Your task to perform on an android device: Search for sushi restaurants on Maps Image 0: 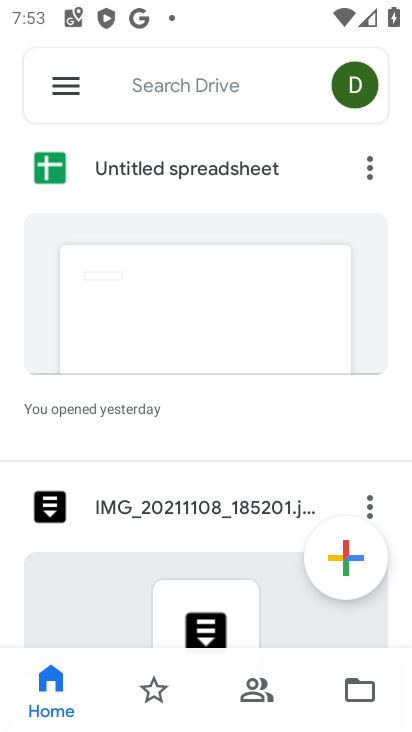
Step 0: press home button
Your task to perform on an android device: Search for sushi restaurants on Maps Image 1: 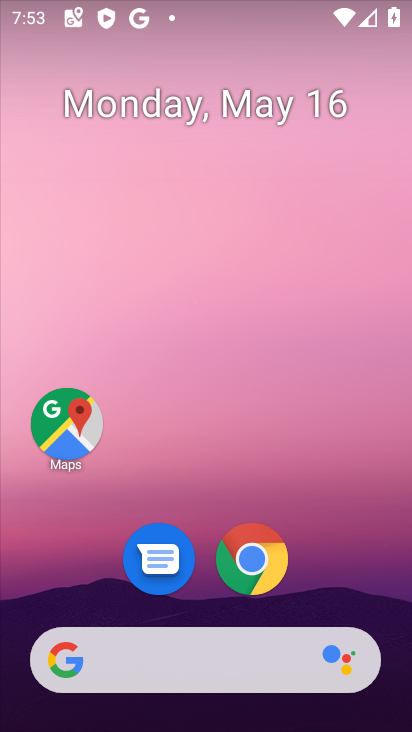
Step 1: click (67, 434)
Your task to perform on an android device: Search for sushi restaurants on Maps Image 2: 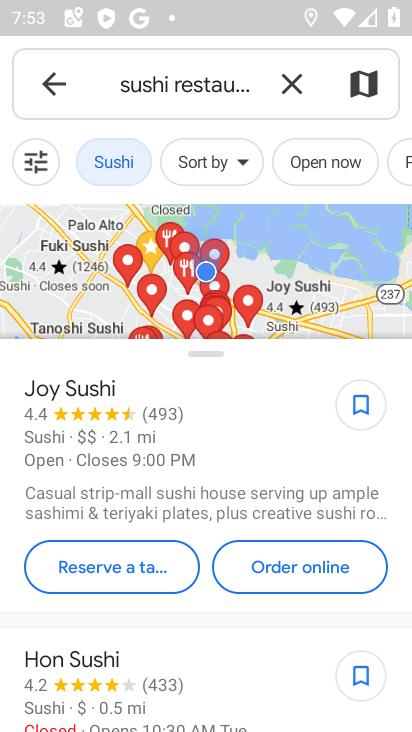
Step 2: task complete